Your task to perform on an android device: Open Google Maps and go to "Timeline" Image 0: 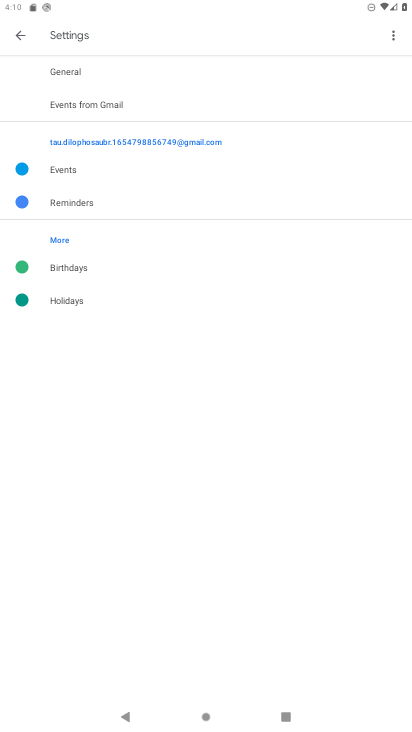
Step 0: press home button
Your task to perform on an android device: Open Google Maps and go to "Timeline" Image 1: 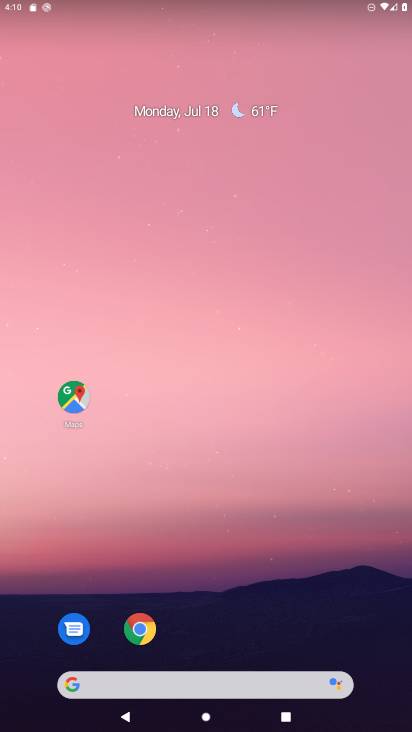
Step 1: drag from (216, 662) to (216, 420)
Your task to perform on an android device: Open Google Maps and go to "Timeline" Image 2: 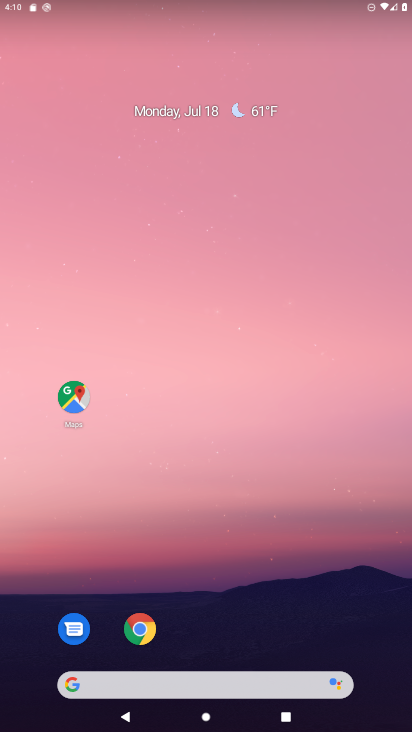
Step 2: click (67, 402)
Your task to perform on an android device: Open Google Maps and go to "Timeline" Image 3: 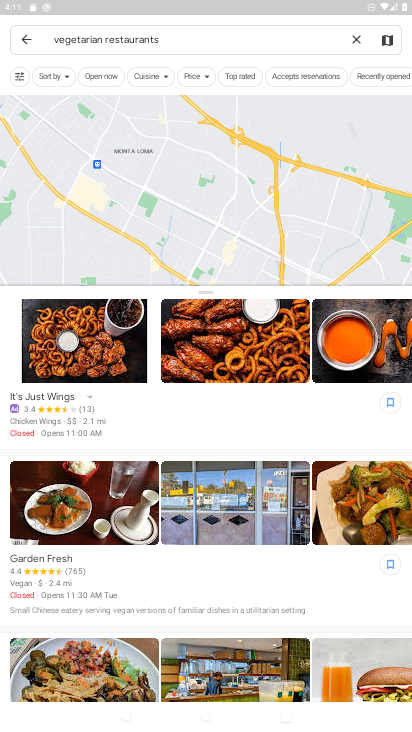
Step 3: click (163, 40)
Your task to perform on an android device: Open Google Maps and go to "Timeline" Image 4: 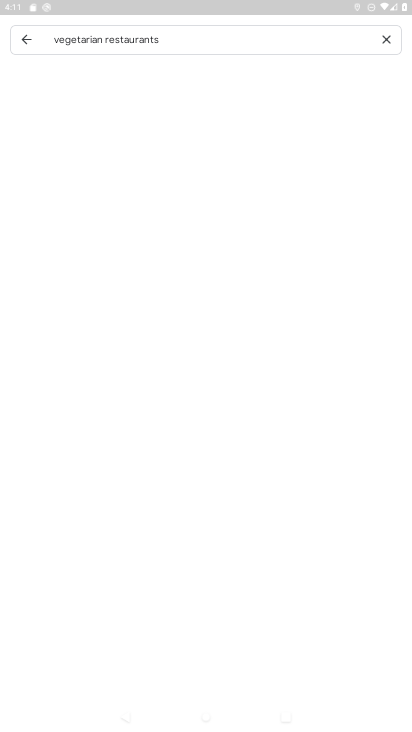
Step 4: click (383, 37)
Your task to perform on an android device: Open Google Maps and go to "Timeline" Image 5: 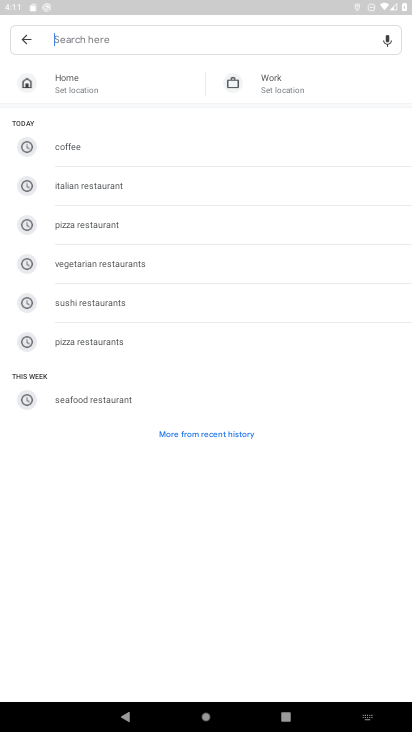
Step 5: click (23, 36)
Your task to perform on an android device: Open Google Maps and go to "Timeline" Image 6: 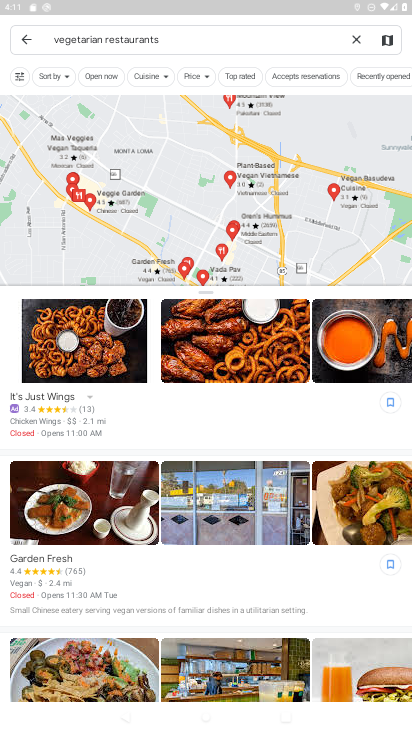
Step 6: click (31, 39)
Your task to perform on an android device: Open Google Maps and go to "Timeline" Image 7: 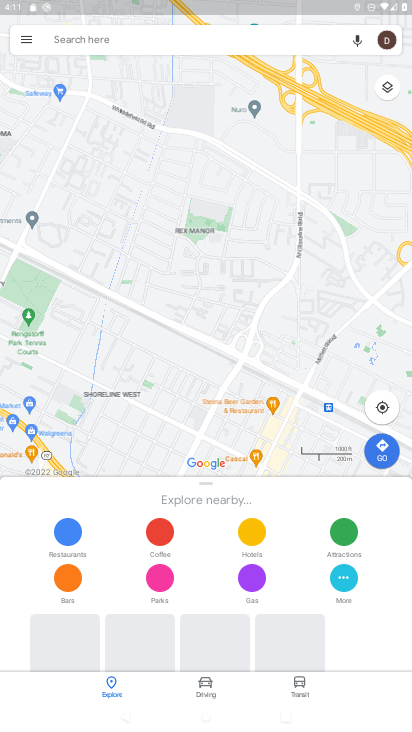
Step 7: click (25, 41)
Your task to perform on an android device: Open Google Maps and go to "Timeline" Image 8: 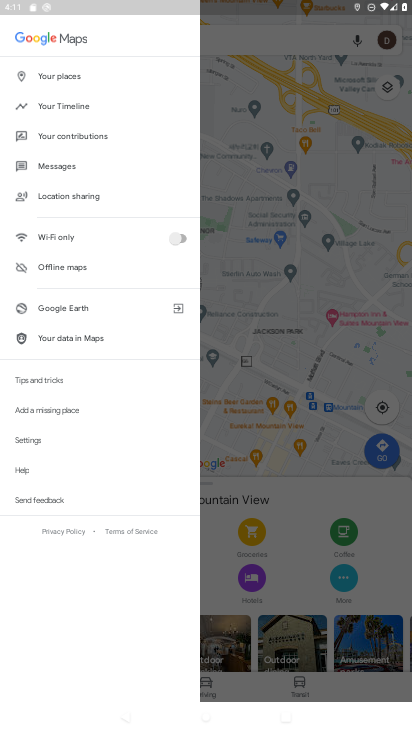
Step 8: click (61, 103)
Your task to perform on an android device: Open Google Maps and go to "Timeline" Image 9: 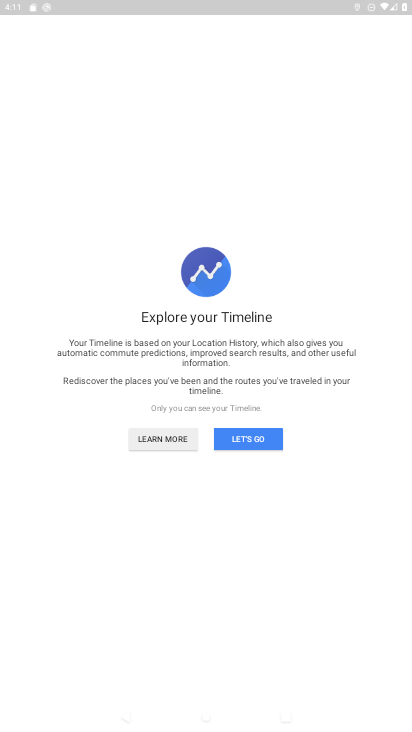
Step 9: click (254, 443)
Your task to perform on an android device: Open Google Maps and go to "Timeline" Image 10: 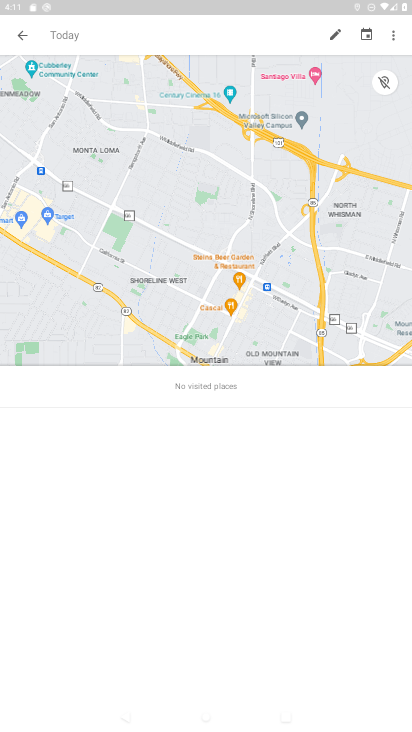
Step 10: task complete